Your task to perform on an android device: Open Reddit.com Image 0: 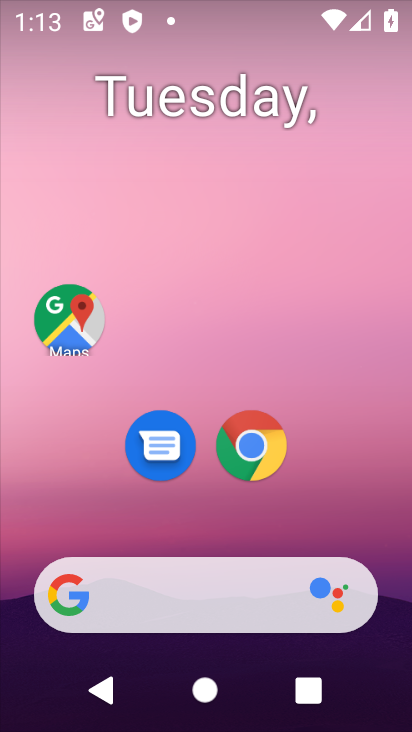
Step 0: click (258, 470)
Your task to perform on an android device: Open Reddit.com Image 1: 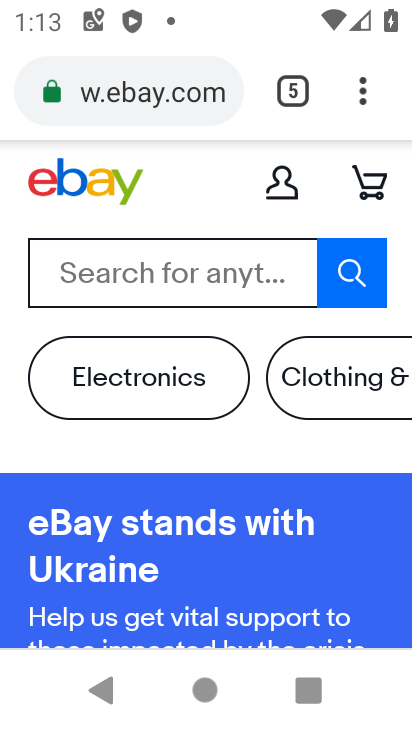
Step 1: click (179, 102)
Your task to perform on an android device: Open Reddit.com Image 2: 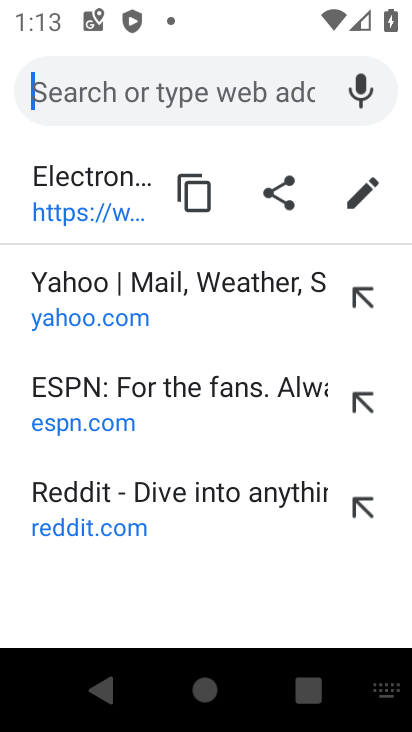
Step 2: click (182, 514)
Your task to perform on an android device: Open Reddit.com Image 3: 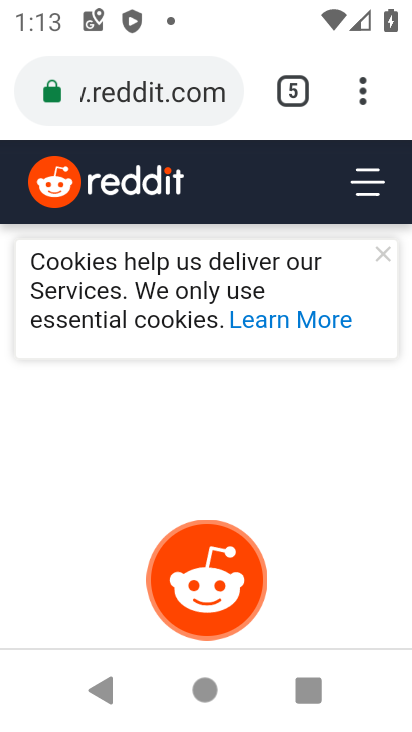
Step 3: task complete